Your task to perform on an android device: allow cookies in the chrome app Image 0: 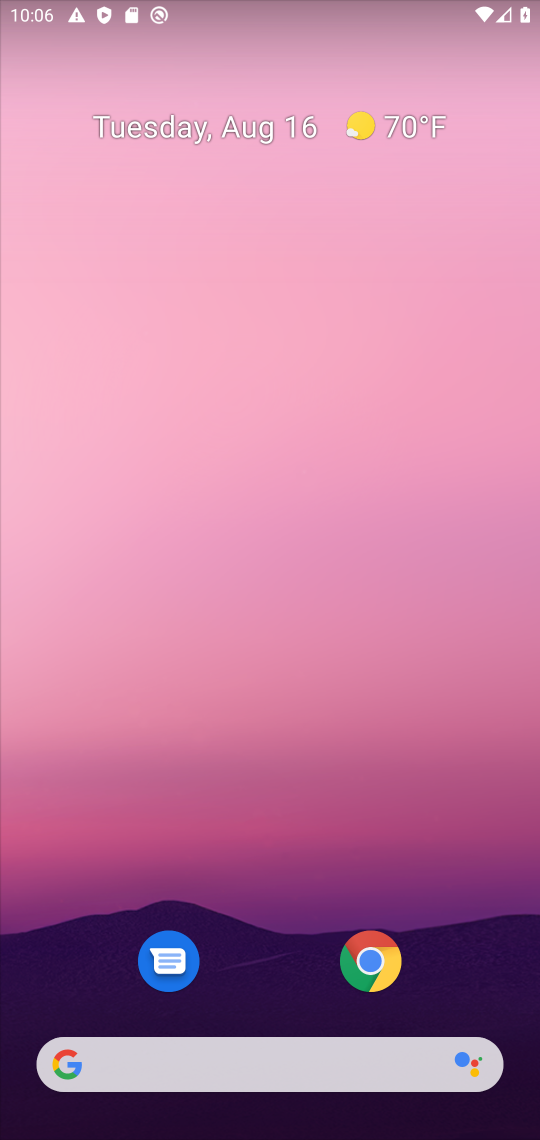
Step 0: press home button
Your task to perform on an android device: allow cookies in the chrome app Image 1: 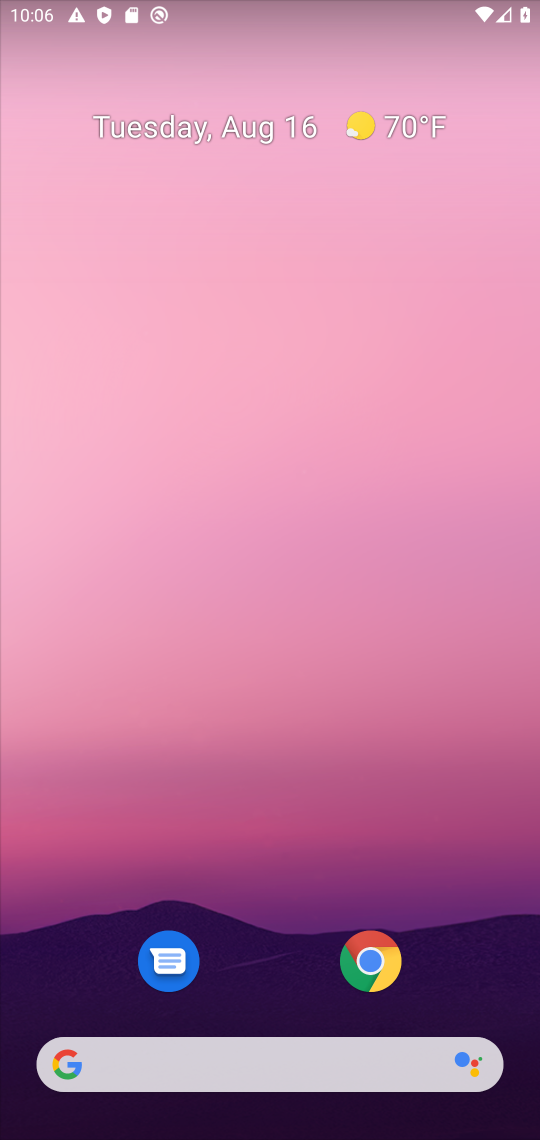
Step 1: drag from (350, 784) to (349, 527)
Your task to perform on an android device: allow cookies in the chrome app Image 2: 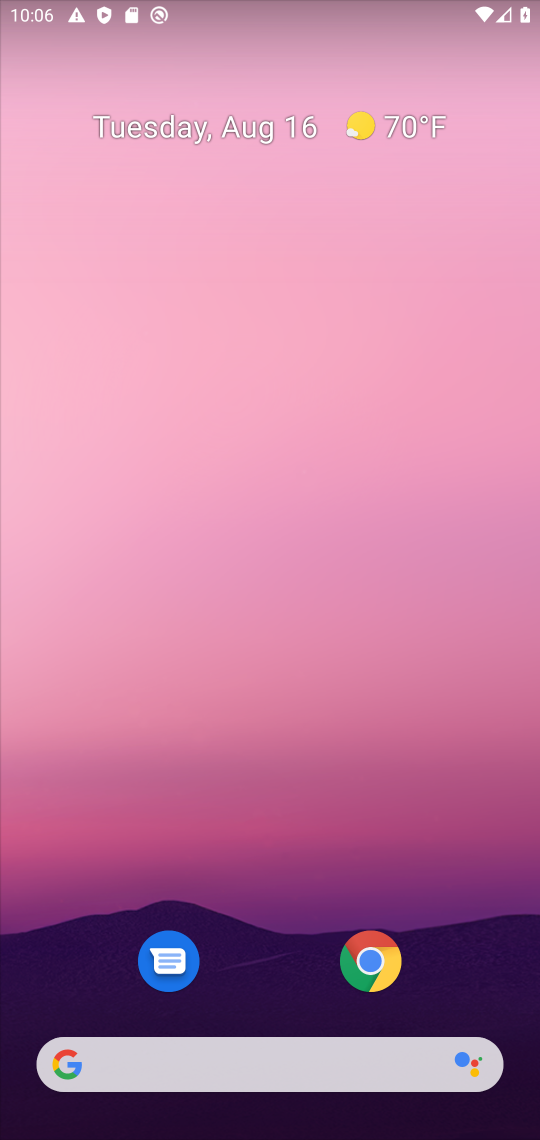
Step 2: drag from (316, 726) to (272, 158)
Your task to perform on an android device: allow cookies in the chrome app Image 3: 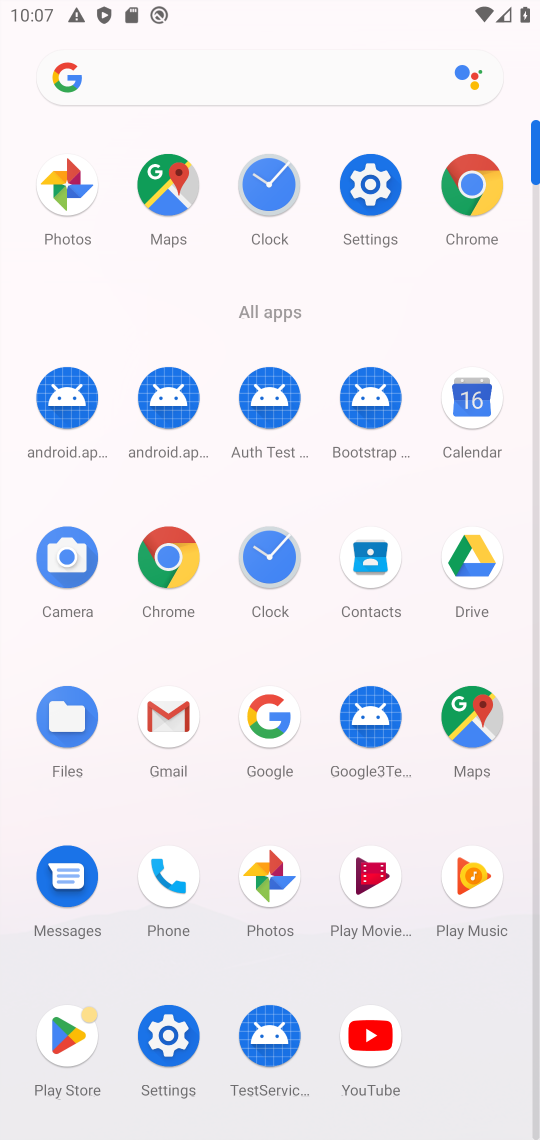
Step 3: click (463, 198)
Your task to perform on an android device: allow cookies in the chrome app Image 4: 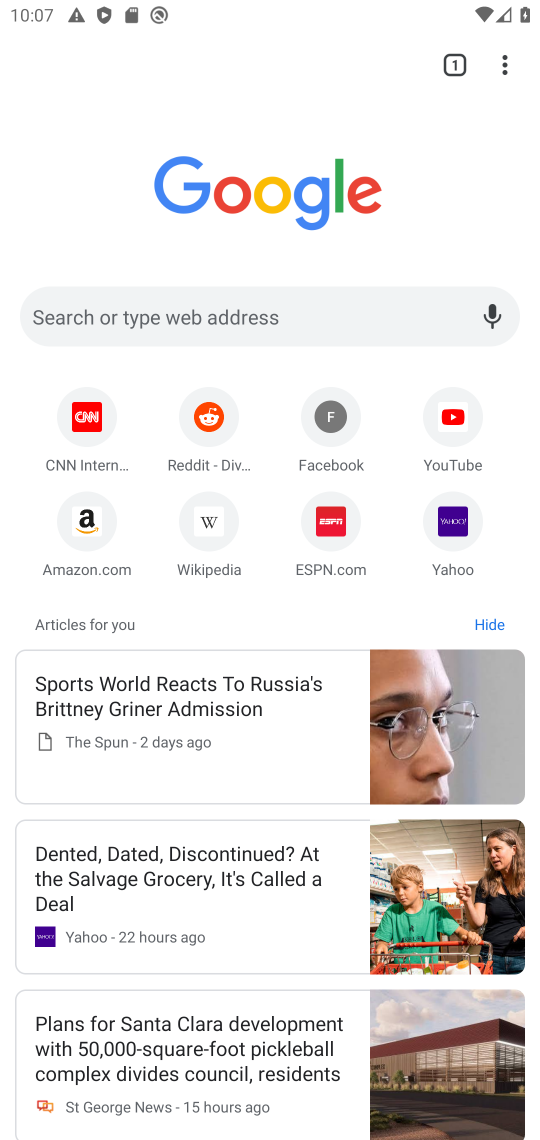
Step 4: click (514, 65)
Your task to perform on an android device: allow cookies in the chrome app Image 5: 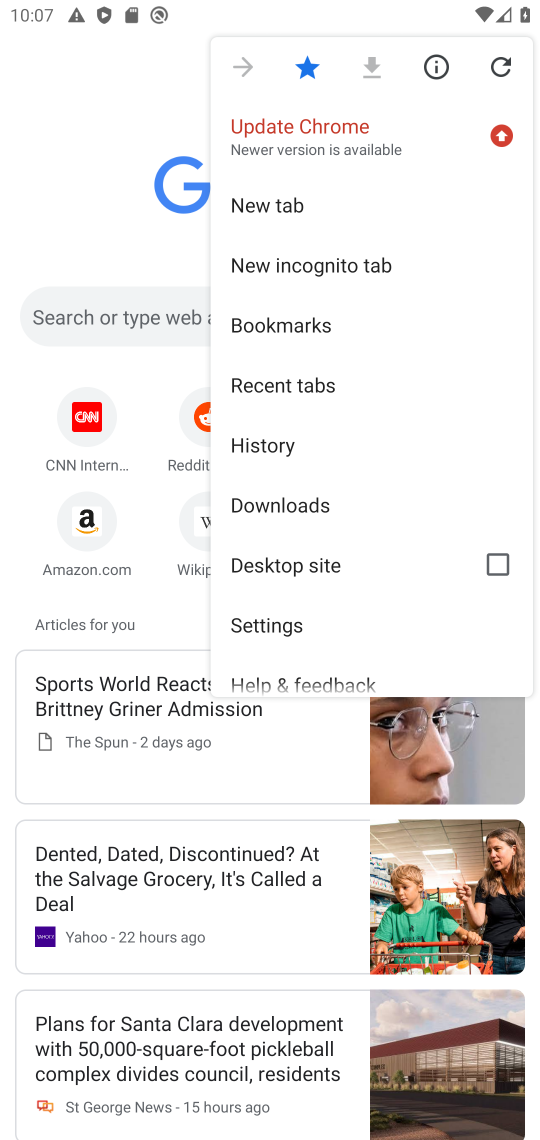
Step 5: click (295, 445)
Your task to perform on an android device: allow cookies in the chrome app Image 6: 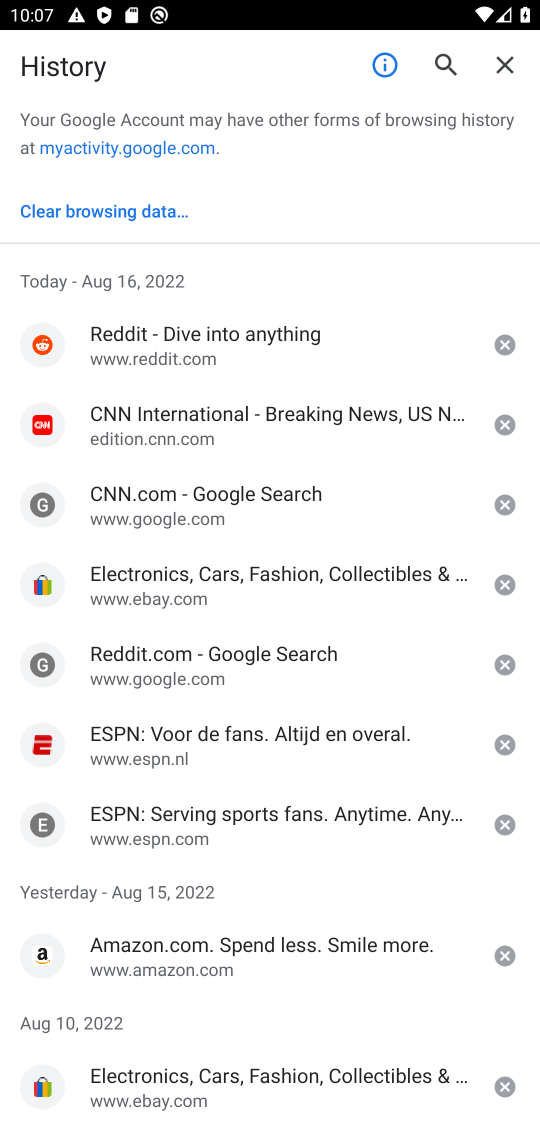
Step 6: task complete